Your task to perform on an android device: Search for Italian restaurants on Maps Image 0: 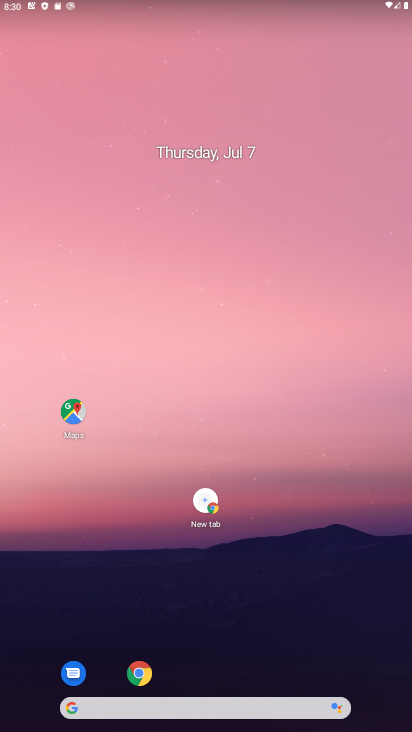
Step 0: press home button
Your task to perform on an android device: Search for Italian restaurants on Maps Image 1: 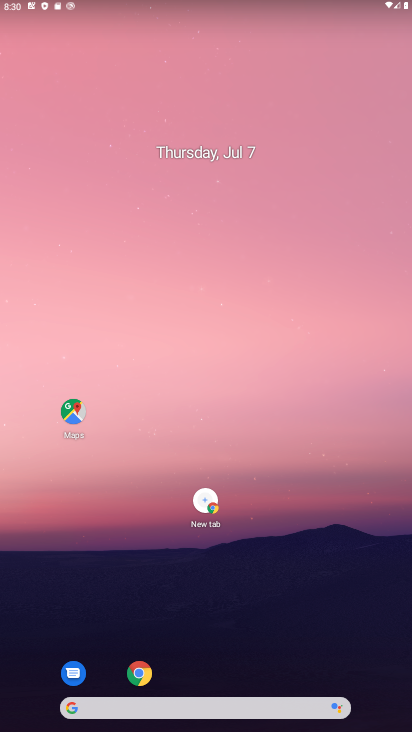
Step 1: click (253, 404)
Your task to perform on an android device: Search for Italian restaurants on Maps Image 2: 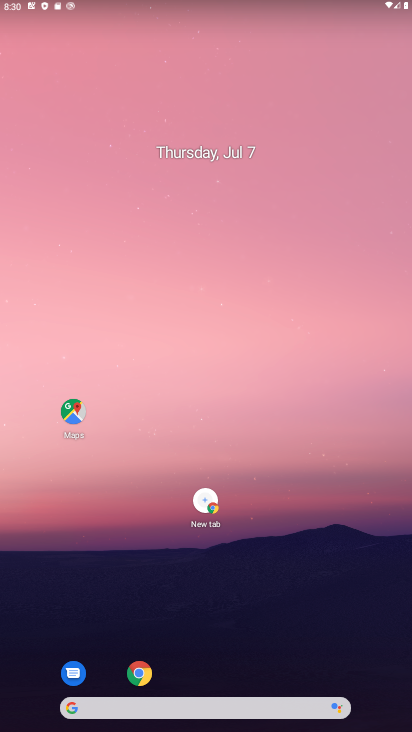
Step 2: click (62, 411)
Your task to perform on an android device: Search for Italian restaurants on Maps Image 3: 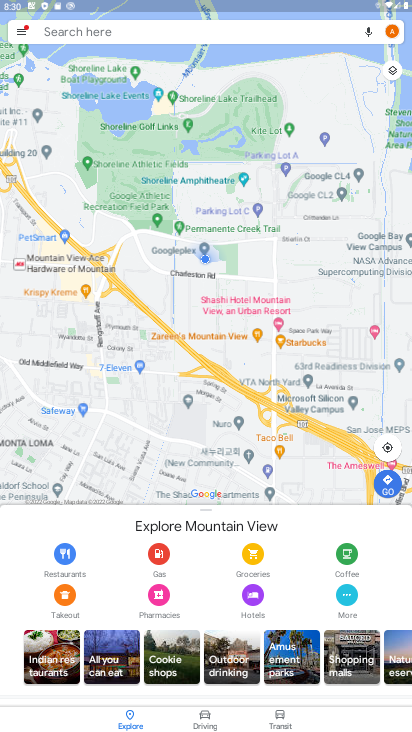
Step 3: type "Italian restaurants"
Your task to perform on an android device: Search for Italian restaurants on Maps Image 4: 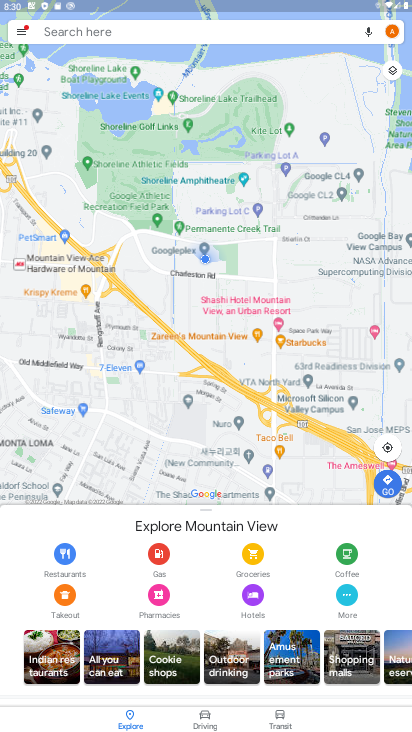
Step 4: click (71, 26)
Your task to perform on an android device: Search for Italian restaurants on Maps Image 5: 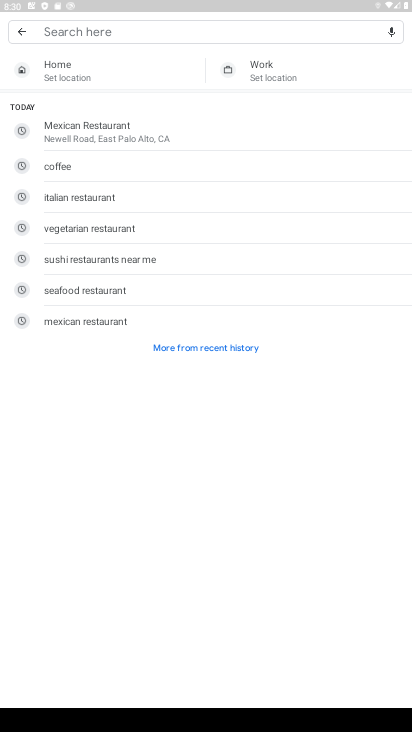
Step 5: click (55, 27)
Your task to perform on an android device: Search for Italian restaurants on Maps Image 6: 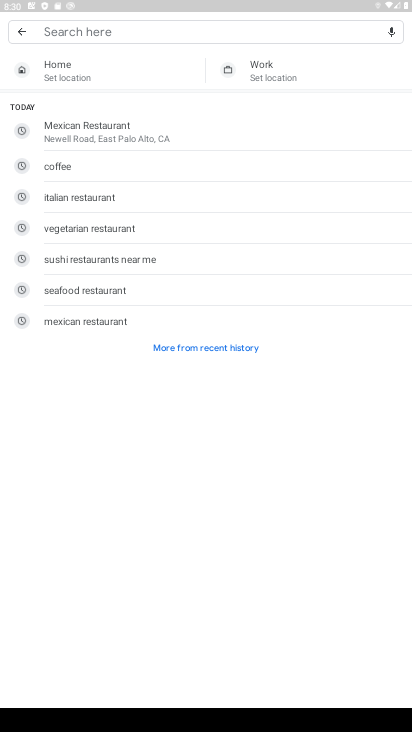
Step 6: click (72, 196)
Your task to perform on an android device: Search for Italian restaurants on Maps Image 7: 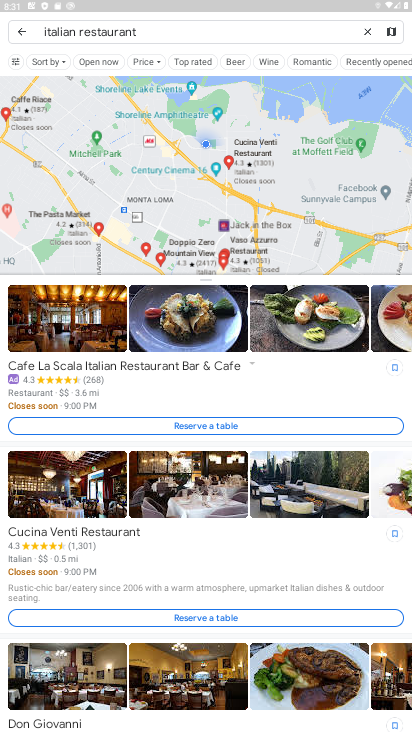
Step 7: task complete